Your task to perform on an android device: change keyboard looks Image 0: 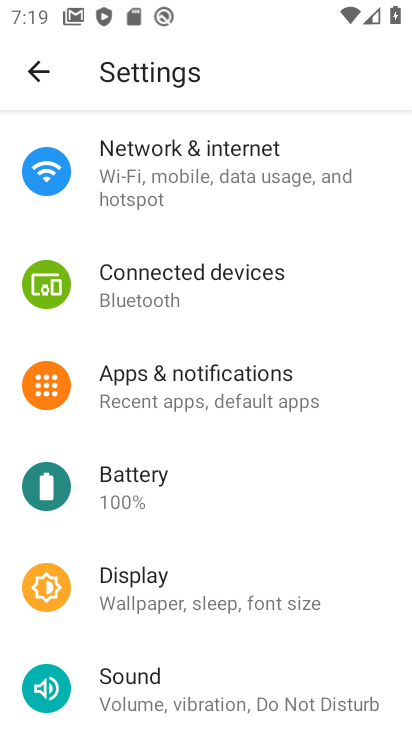
Step 0: drag from (363, 651) to (361, 312)
Your task to perform on an android device: change keyboard looks Image 1: 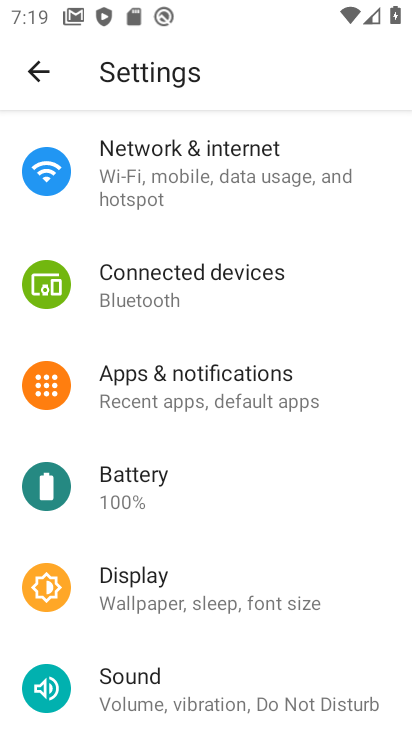
Step 1: drag from (391, 221) to (377, 158)
Your task to perform on an android device: change keyboard looks Image 2: 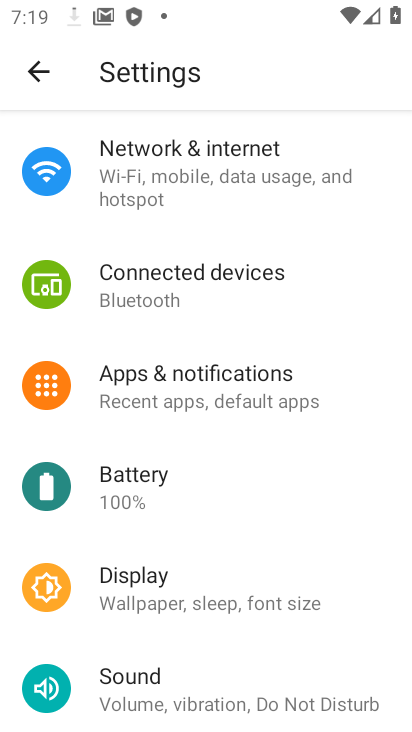
Step 2: drag from (391, 409) to (382, 194)
Your task to perform on an android device: change keyboard looks Image 3: 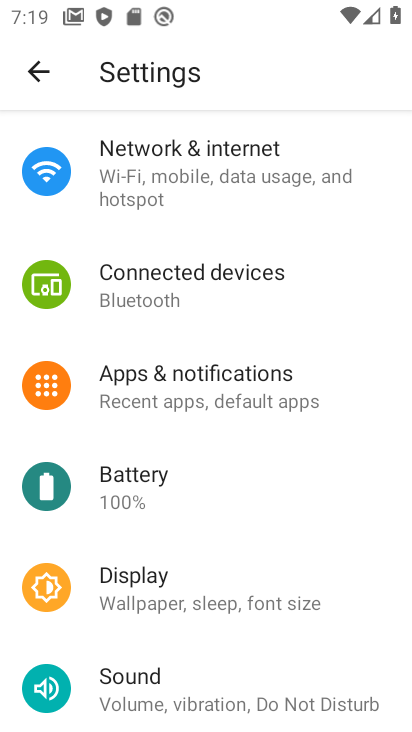
Step 3: drag from (398, 238) to (389, 131)
Your task to perform on an android device: change keyboard looks Image 4: 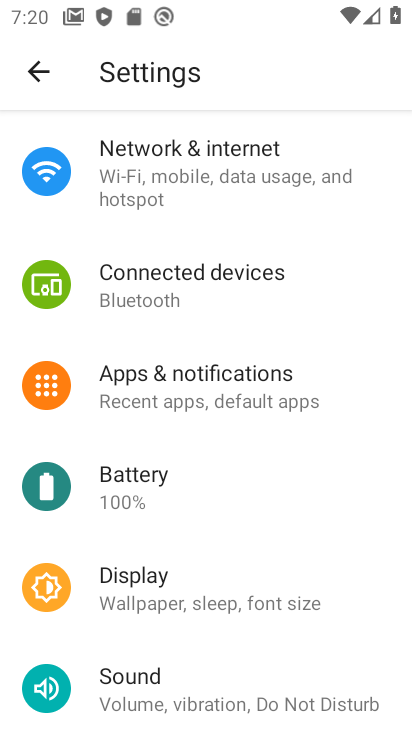
Step 4: drag from (366, 376) to (363, 206)
Your task to perform on an android device: change keyboard looks Image 5: 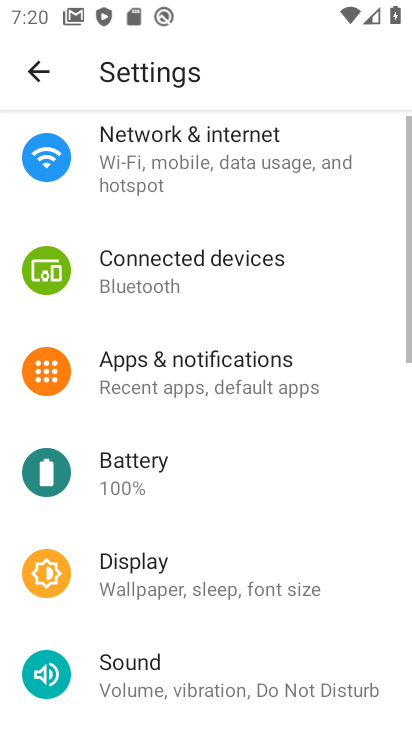
Step 5: drag from (376, 621) to (364, 76)
Your task to perform on an android device: change keyboard looks Image 6: 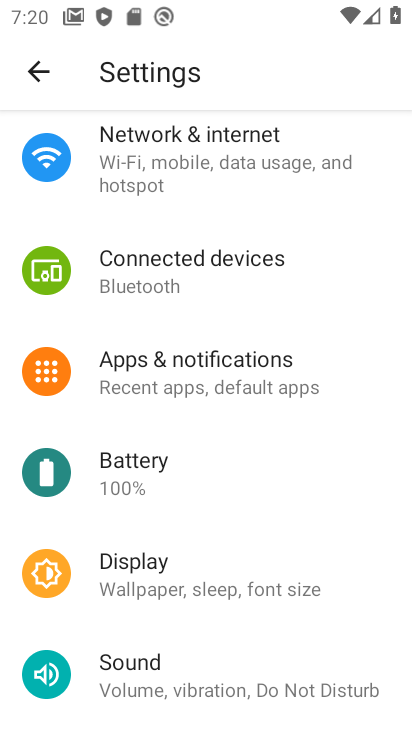
Step 6: drag from (407, 137) to (408, 91)
Your task to perform on an android device: change keyboard looks Image 7: 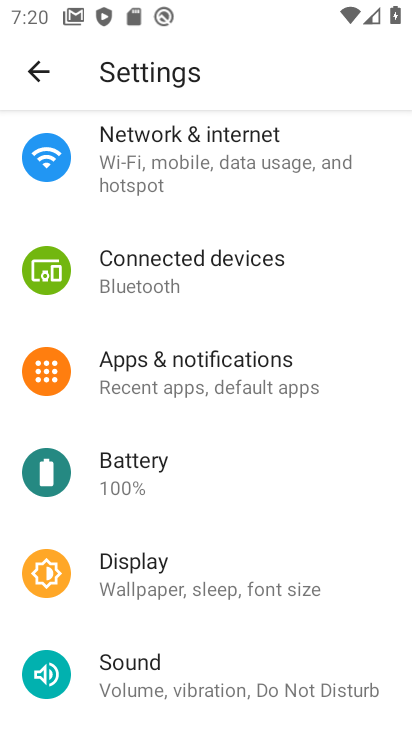
Step 7: drag from (405, 275) to (407, 133)
Your task to perform on an android device: change keyboard looks Image 8: 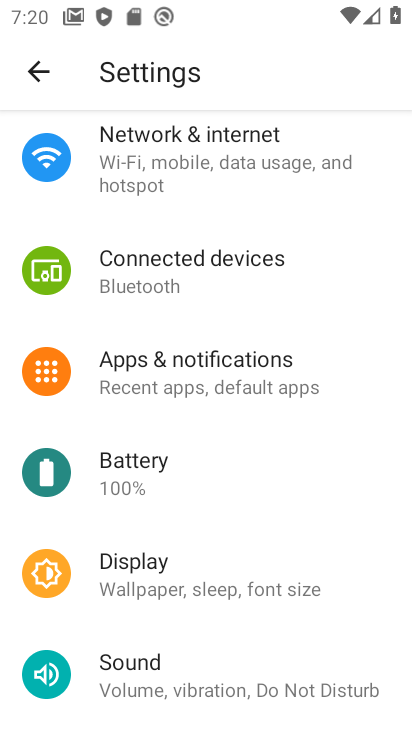
Step 8: drag from (402, 306) to (401, 117)
Your task to perform on an android device: change keyboard looks Image 9: 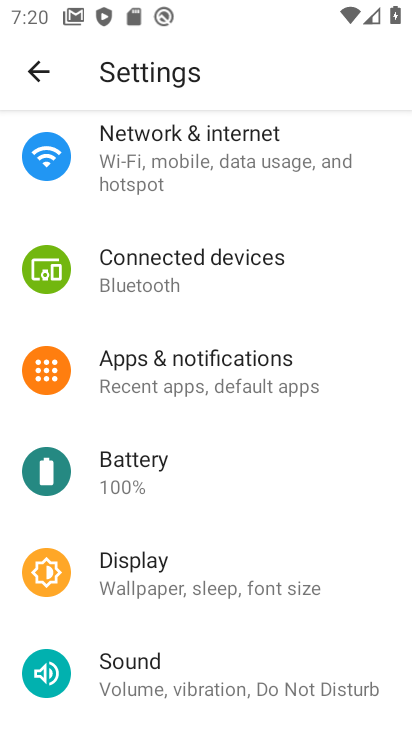
Step 9: drag from (411, 253) to (410, 170)
Your task to perform on an android device: change keyboard looks Image 10: 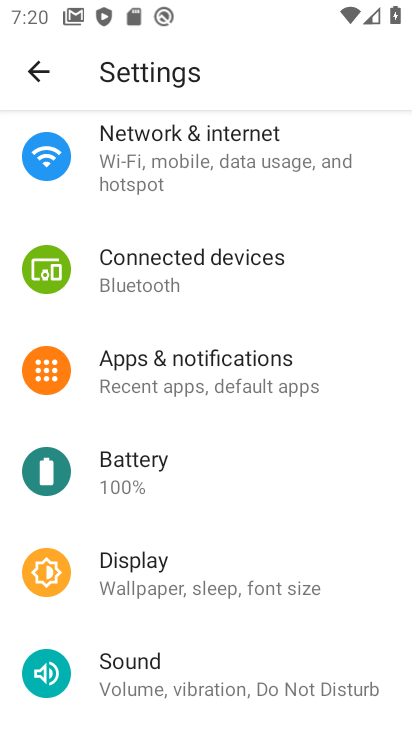
Step 10: drag from (399, 293) to (408, 151)
Your task to perform on an android device: change keyboard looks Image 11: 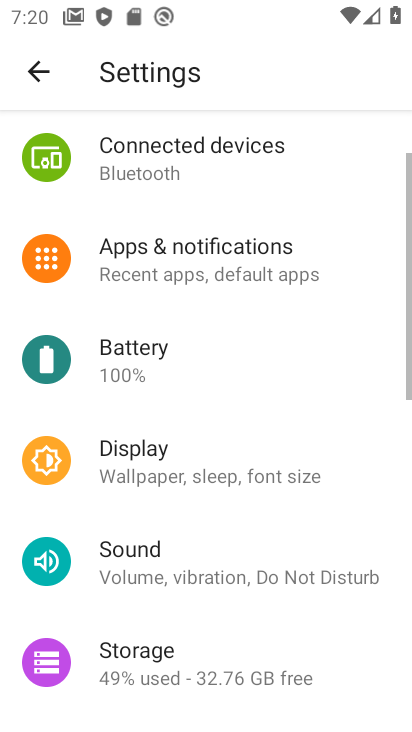
Step 11: drag from (380, 346) to (378, 93)
Your task to perform on an android device: change keyboard looks Image 12: 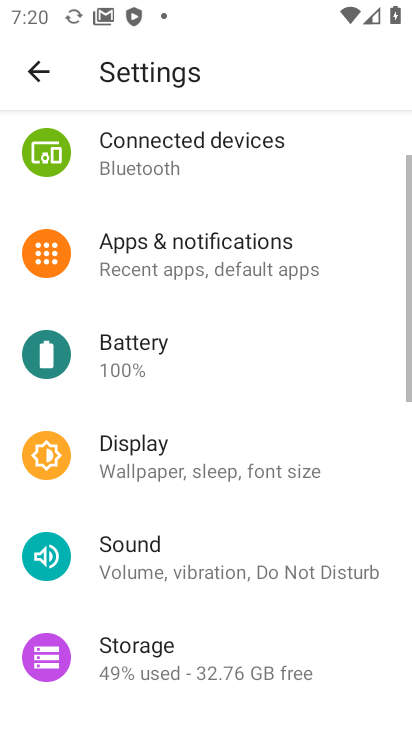
Step 12: click (410, 313)
Your task to perform on an android device: change keyboard looks Image 13: 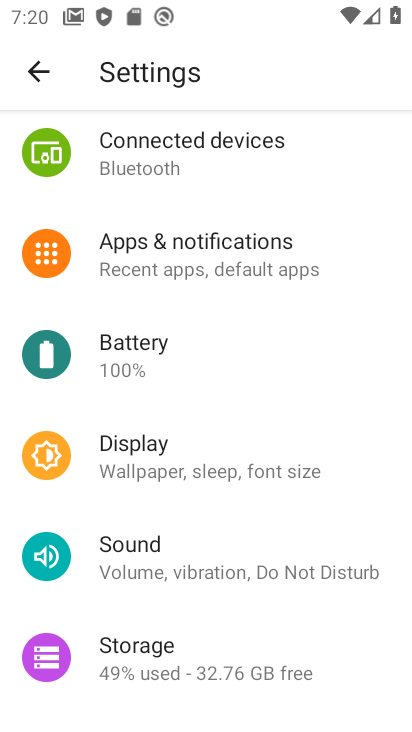
Step 13: drag from (404, 358) to (410, 197)
Your task to perform on an android device: change keyboard looks Image 14: 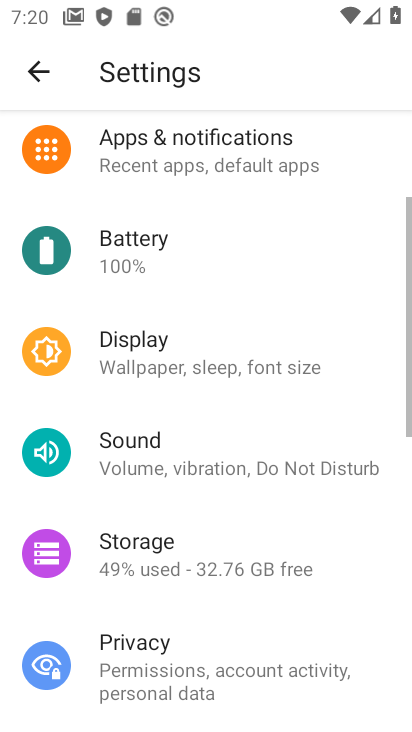
Step 14: drag from (374, 455) to (366, 274)
Your task to perform on an android device: change keyboard looks Image 15: 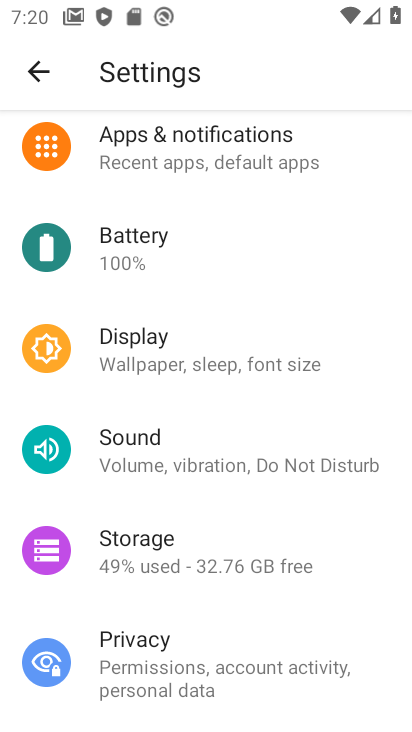
Step 15: drag from (402, 429) to (410, 262)
Your task to perform on an android device: change keyboard looks Image 16: 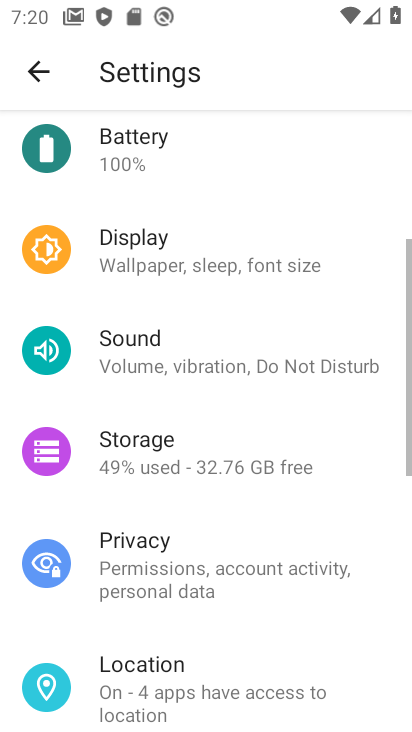
Step 16: drag from (400, 361) to (410, 163)
Your task to perform on an android device: change keyboard looks Image 17: 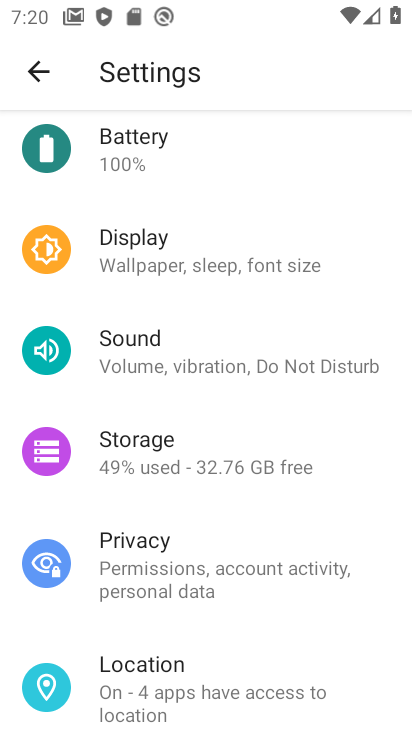
Step 17: click (401, 137)
Your task to perform on an android device: change keyboard looks Image 18: 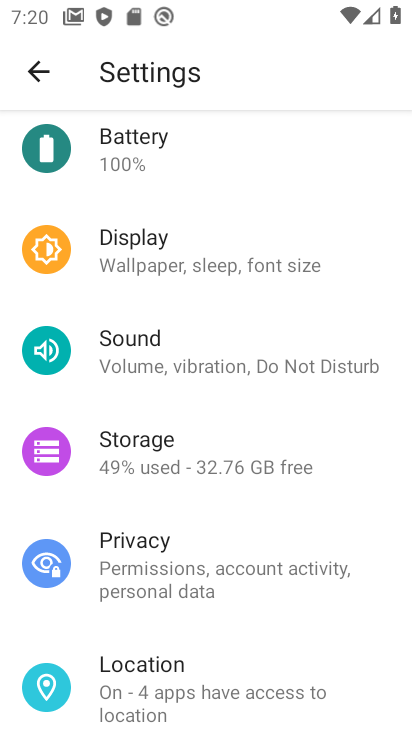
Step 18: click (403, 136)
Your task to perform on an android device: change keyboard looks Image 19: 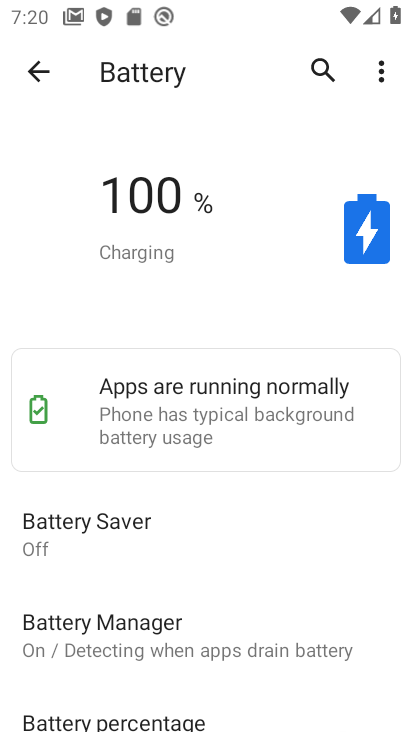
Step 19: press back button
Your task to perform on an android device: change keyboard looks Image 20: 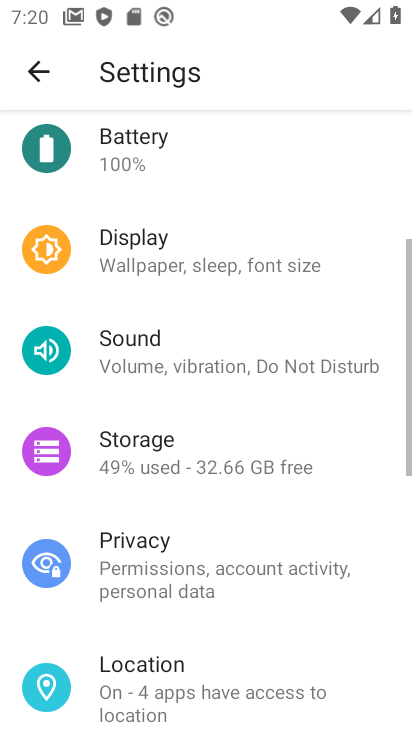
Step 20: drag from (393, 498) to (370, 148)
Your task to perform on an android device: change keyboard looks Image 21: 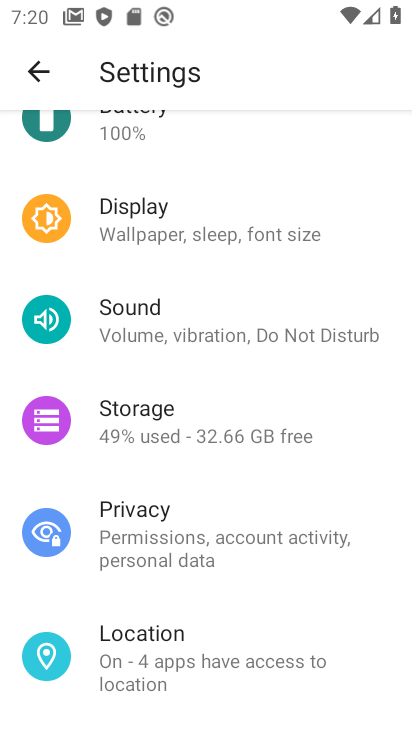
Step 21: drag from (388, 568) to (392, 303)
Your task to perform on an android device: change keyboard looks Image 22: 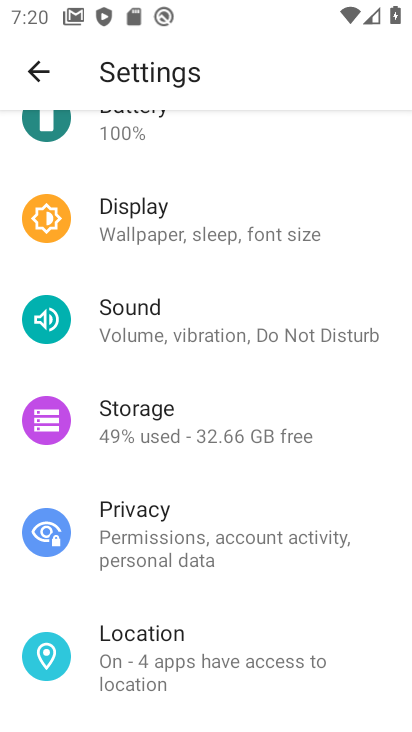
Step 22: drag from (386, 671) to (394, 154)
Your task to perform on an android device: change keyboard looks Image 23: 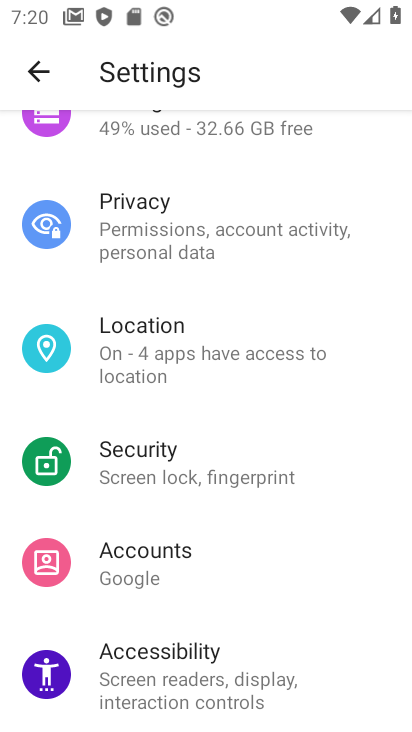
Step 23: click (394, 529)
Your task to perform on an android device: change keyboard looks Image 24: 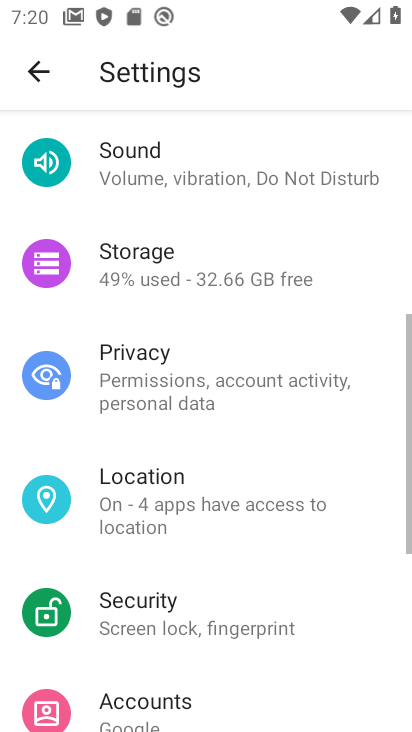
Step 24: drag from (378, 619) to (373, 330)
Your task to perform on an android device: change keyboard looks Image 25: 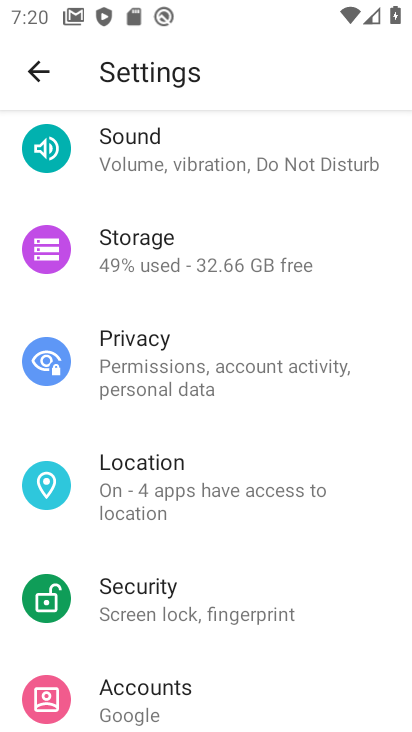
Step 25: drag from (381, 644) to (400, 193)
Your task to perform on an android device: change keyboard looks Image 26: 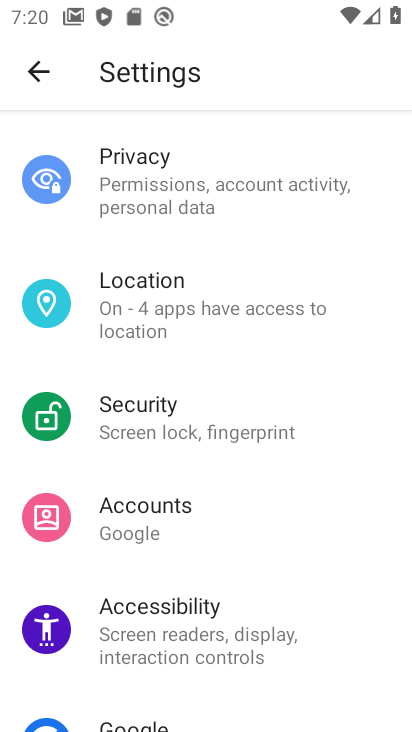
Step 26: drag from (391, 620) to (395, 230)
Your task to perform on an android device: change keyboard looks Image 27: 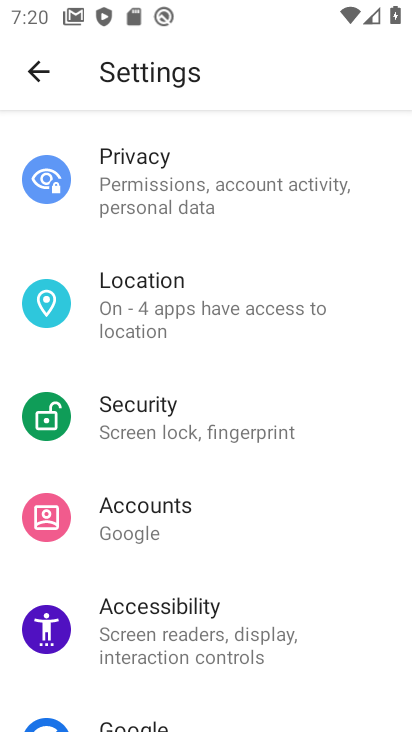
Step 27: drag from (399, 649) to (383, 273)
Your task to perform on an android device: change keyboard looks Image 28: 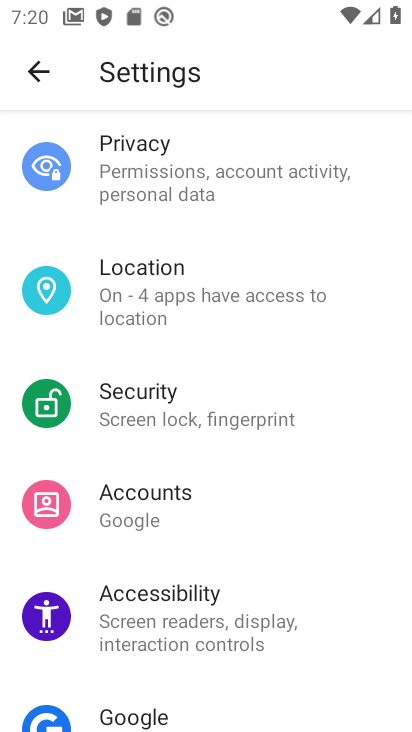
Step 28: drag from (382, 249) to (380, 92)
Your task to perform on an android device: change keyboard looks Image 29: 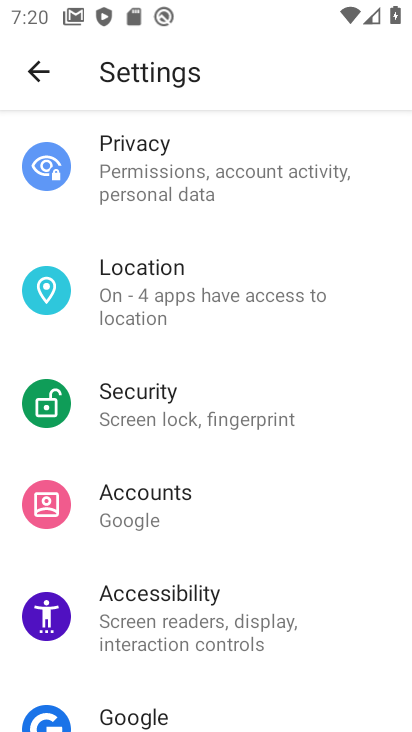
Step 29: drag from (378, 598) to (388, 232)
Your task to perform on an android device: change keyboard looks Image 30: 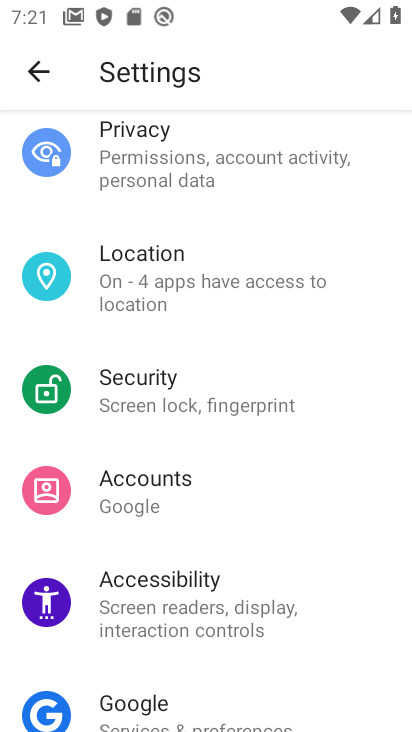
Step 30: drag from (360, 608) to (342, 234)
Your task to perform on an android device: change keyboard looks Image 31: 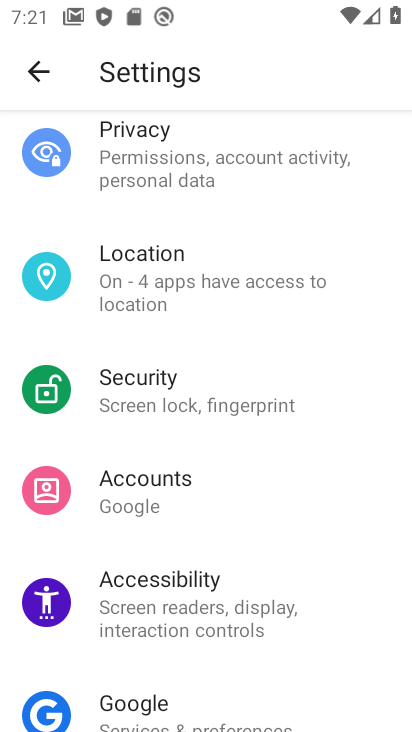
Step 31: drag from (382, 569) to (405, 118)
Your task to perform on an android device: change keyboard looks Image 32: 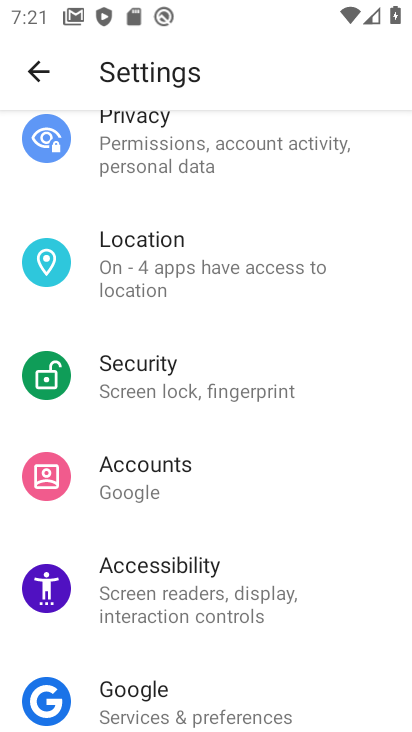
Step 32: drag from (401, 523) to (410, 289)
Your task to perform on an android device: change keyboard looks Image 33: 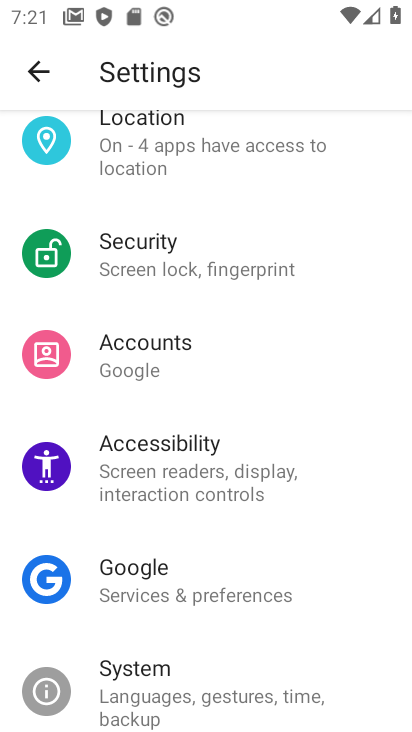
Step 33: drag from (368, 536) to (355, 180)
Your task to perform on an android device: change keyboard looks Image 34: 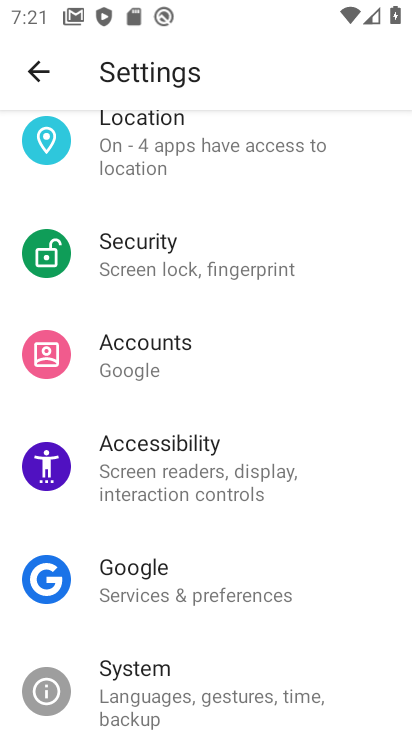
Step 34: click (142, 690)
Your task to perform on an android device: change keyboard looks Image 35: 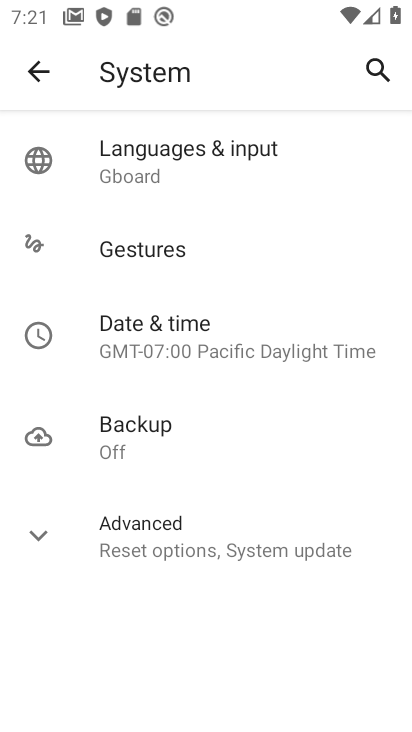
Step 35: click (130, 154)
Your task to perform on an android device: change keyboard looks Image 36: 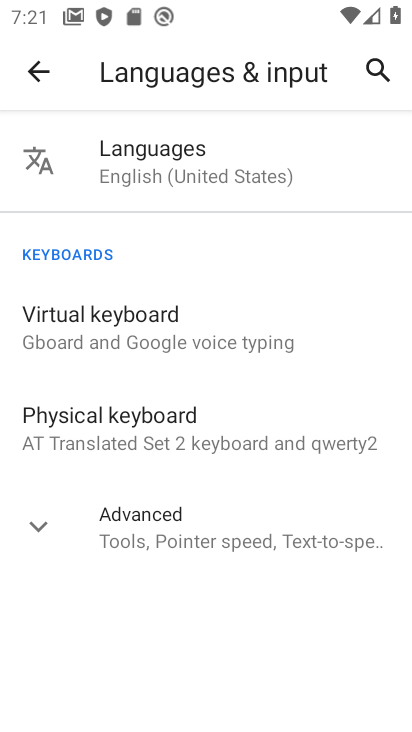
Step 36: click (67, 312)
Your task to perform on an android device: change keyboard looks Image 37: 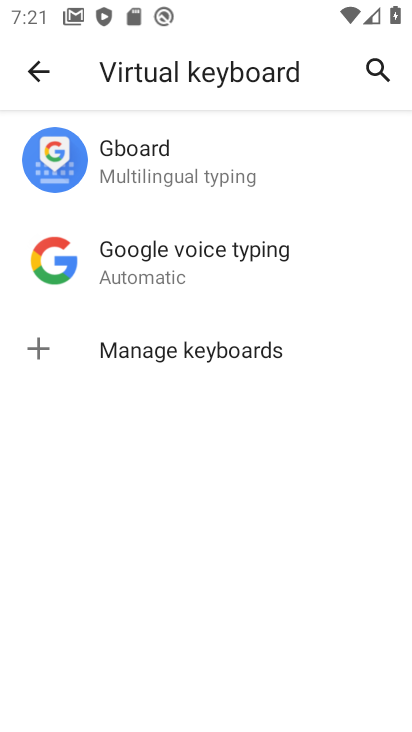
Step 37: click (116, 161)
Your task to perform on an android device: change keyboard looks Image 38: 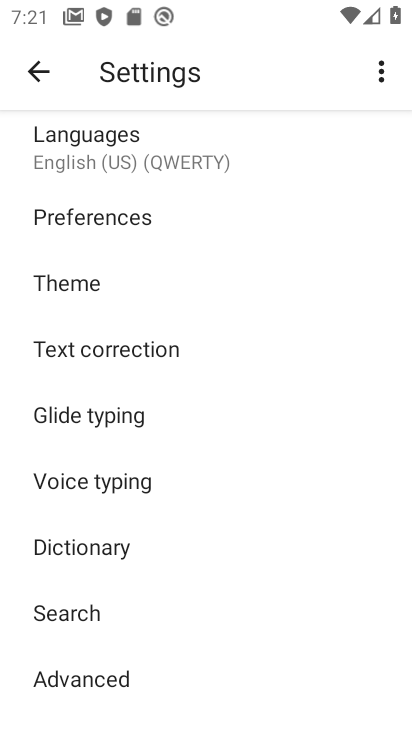
Step 38: click (56, 285)
Your task to perform on an android device: change keyboard looks Image 39: 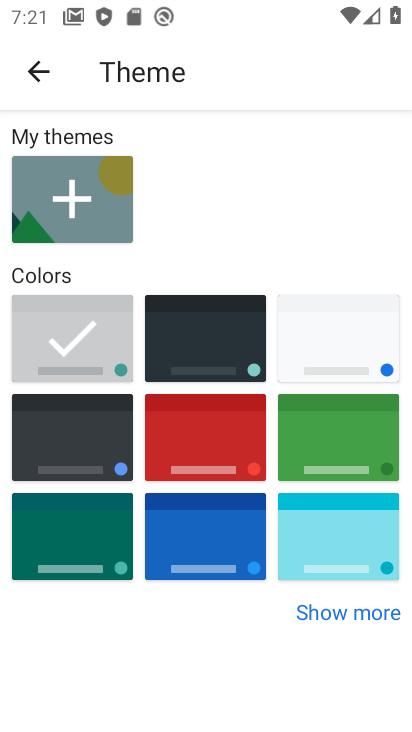
Step 39: click (73, 431)
Your task to perform on an android device: change keyboard looks Image 40: 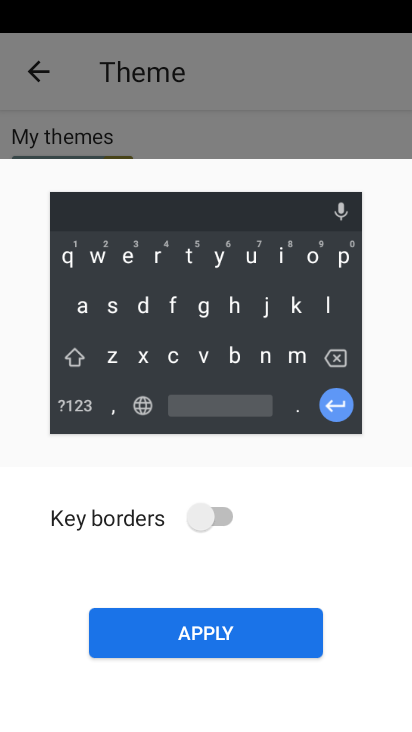
Step 40: click (214, 507)
Your task to perform on an android device: change keyboard looks Image 41: 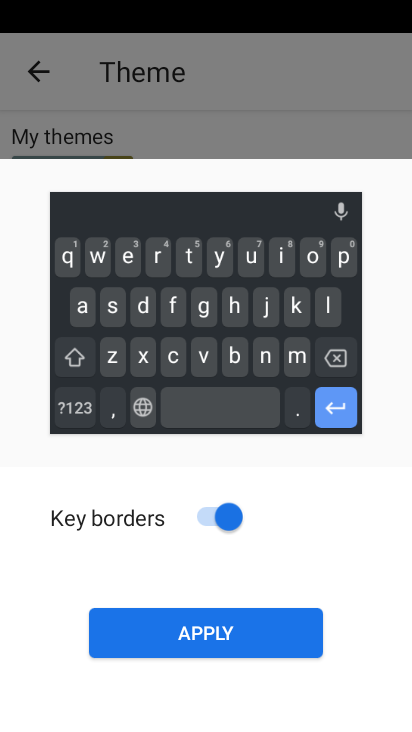
Step 41: click (244, 628)
Your task to perform on an android device: change keyboard looks Image 42: 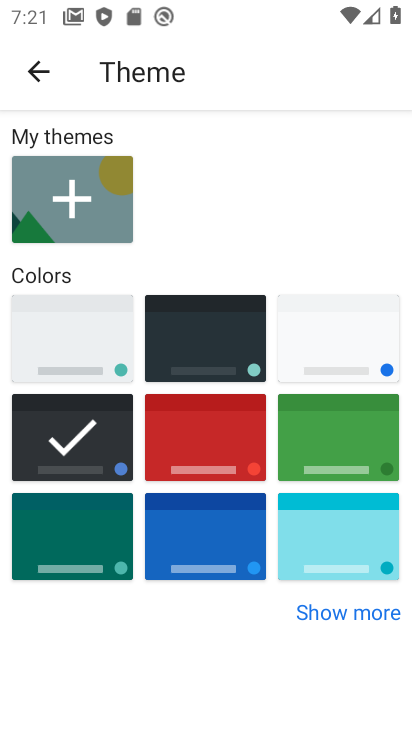
Step 42: task complete